Your task to perform on an android device: turn off sleep mode Image 0: 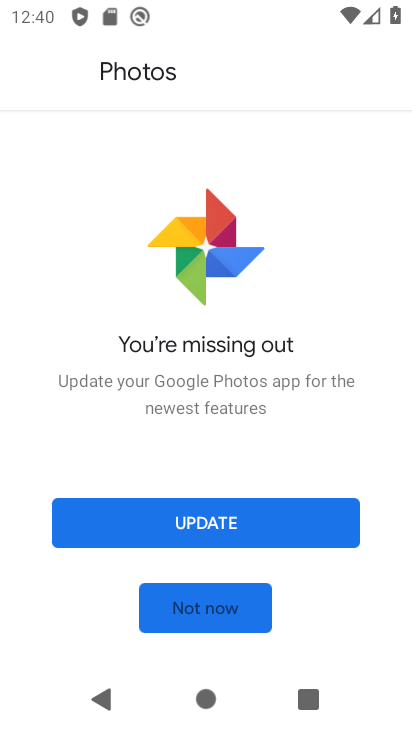
Step 0: press home button
Your task to perform on an android device: turn off sleep mode Image 1: 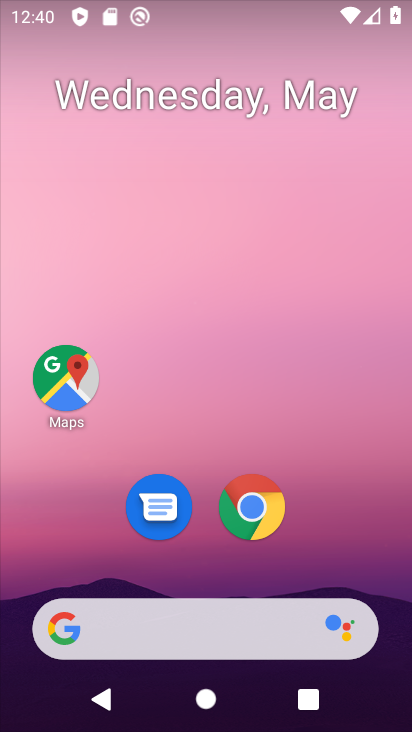
Step 1: drag from (382, 580) to (344, 103)
Your task to perform on an android device: turn off sleep mode Image 2: 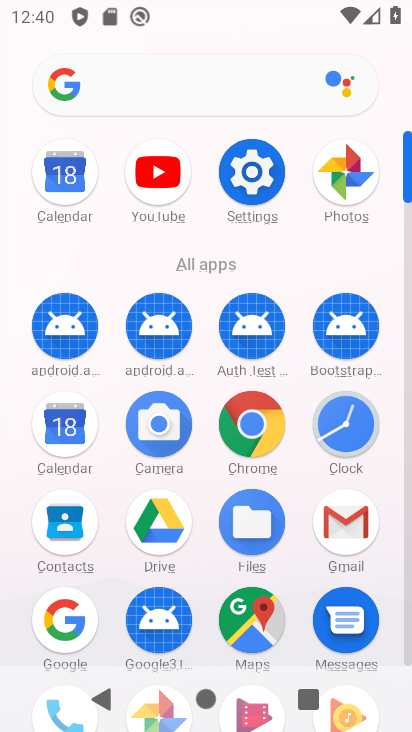
Step 2: click (407, 646)
Your task to perform on an android device: turn off sleep mode Image 3: 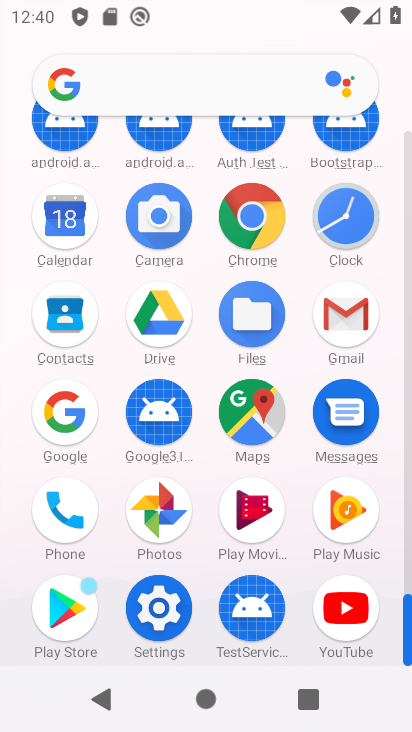
Step 3: click (159, 607)
Your task to perform on an android device: turn off sleep mode Image 4: 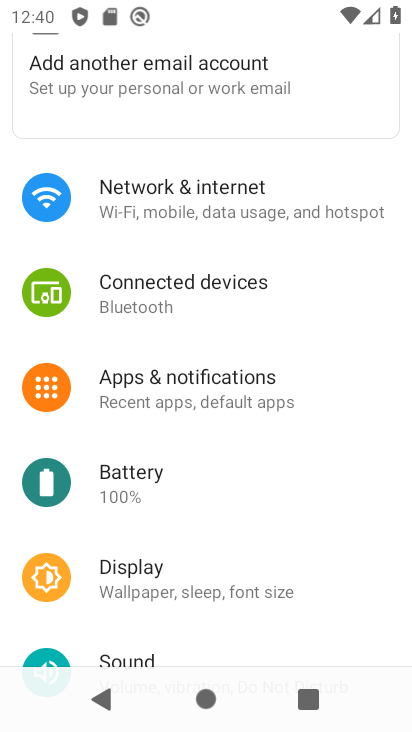
Step 4: click (193, 573)
Your task to perform on an android device: turn off sleep mode Image 5: 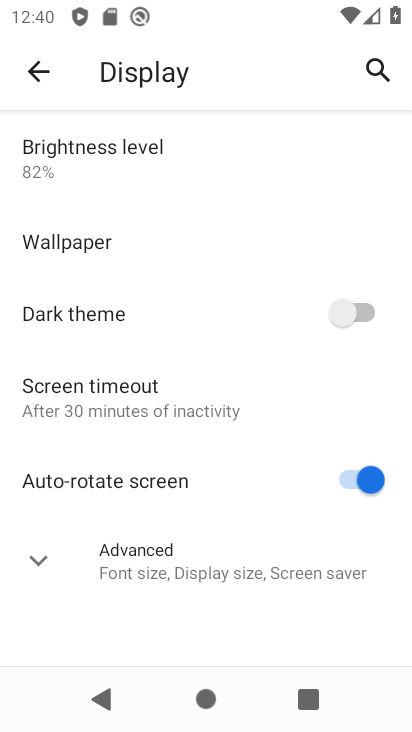
Step 5: click (38, 561)
Your task to perform on an android device: turn off sleep mode Image 6: 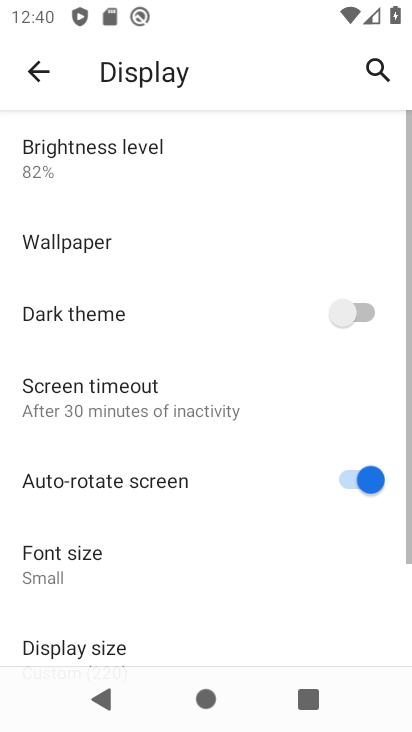
Step 6: task complete